Your task to perform on an android device: Open Google Chrome Image 0: 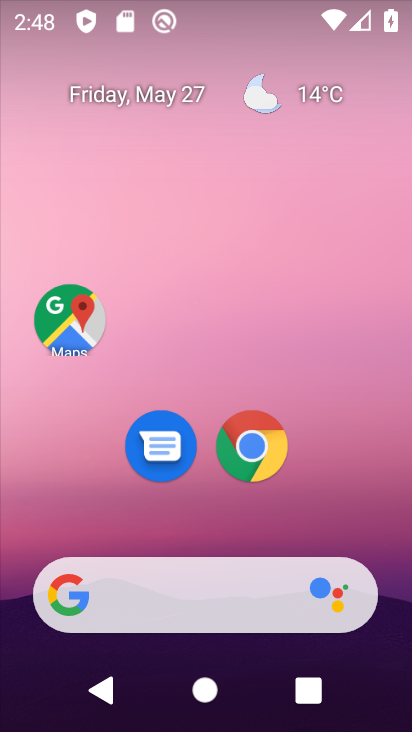
Step 0: press home button
Your task to perform on an android device: Open Google Chrome Image 1: 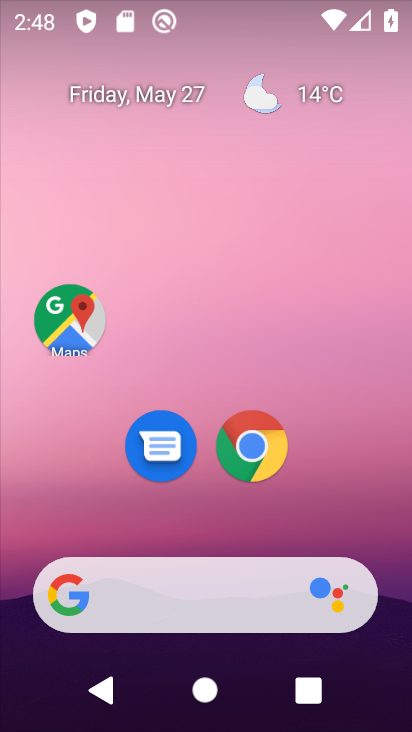
Step 1: click (250, 465)
Your task to perform on an android device: Open Google Chrome Image 2: 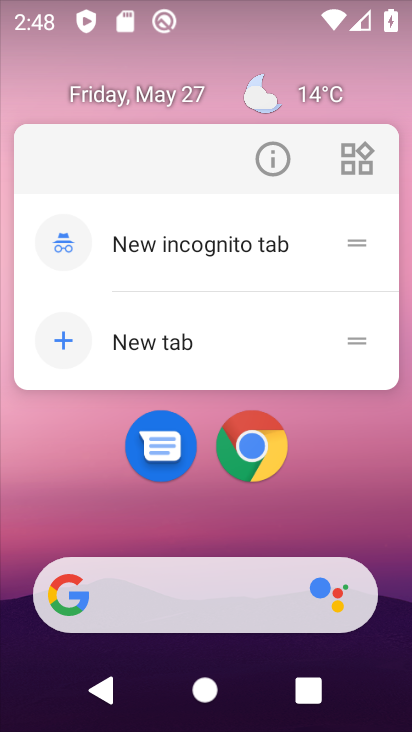
Step 2: click (259, 446)
Your task to perform on an android device: Open Google Chrome Image 3: 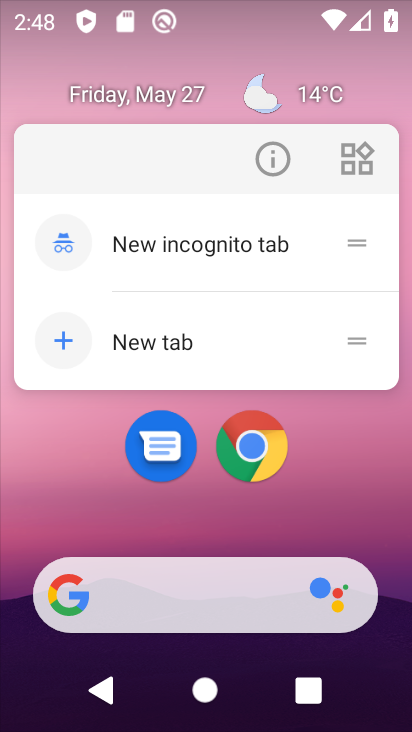
Step 3: click (245, 457)
Your task to perform on an android device: Open Google Chrome Image 4: 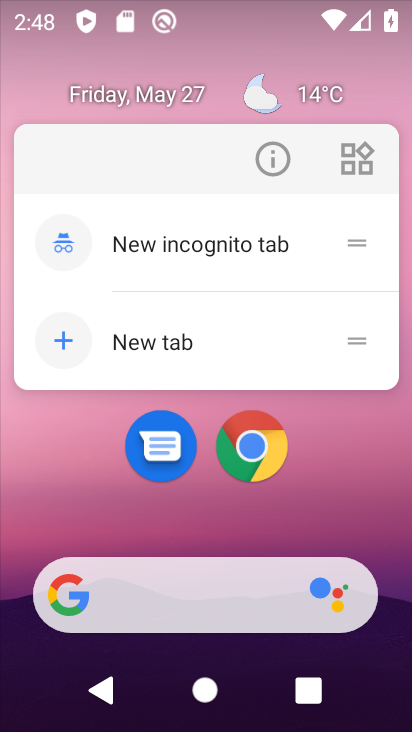
Step 4: click (252, 452)
Your task to perform on an android device: Open Google Chrome Image 5: 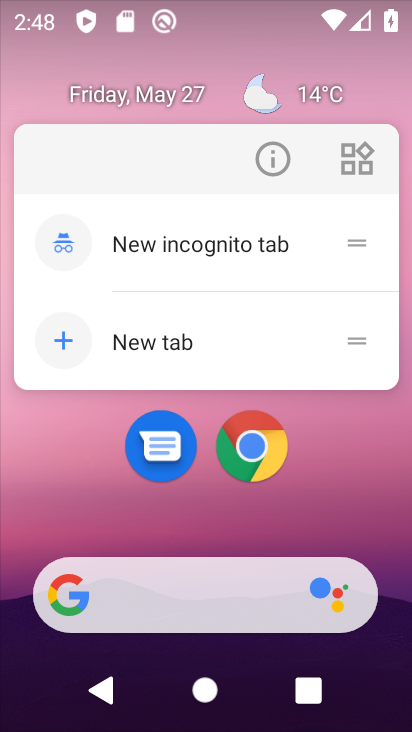
Step 5: click (252, 452)
Your task to perform on an android device: Open Google Chrome Image 6: 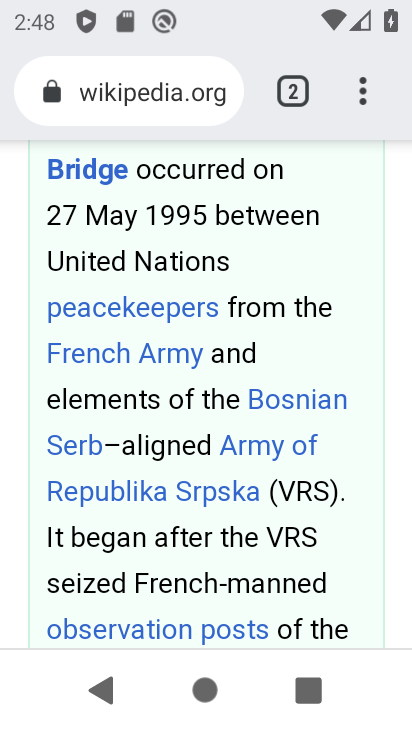
Step 6: task complete